Your task to perform on an android device: turn off notifications in google photos Image 0: 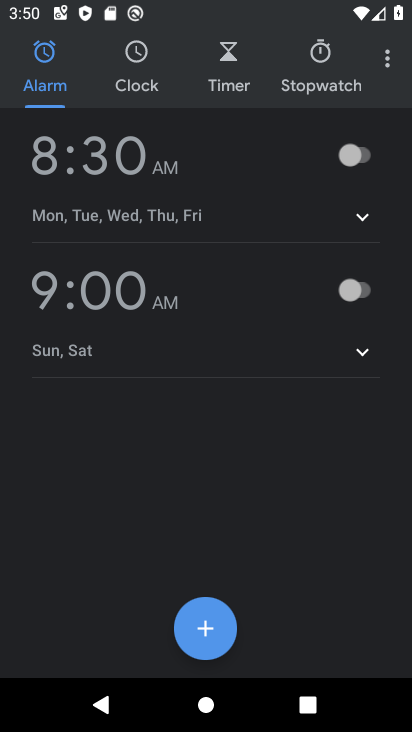
Step 0: press home button
Your task to perform on an android device: turn off notifications in google photos Image 1: 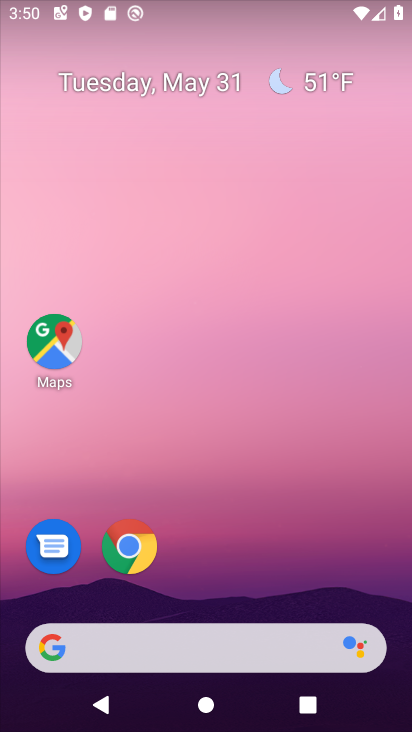
Step 1: drag from (236, 584) to (197, 270)
Your task to perform on an android device: turn off notifications in google photos Image 2: 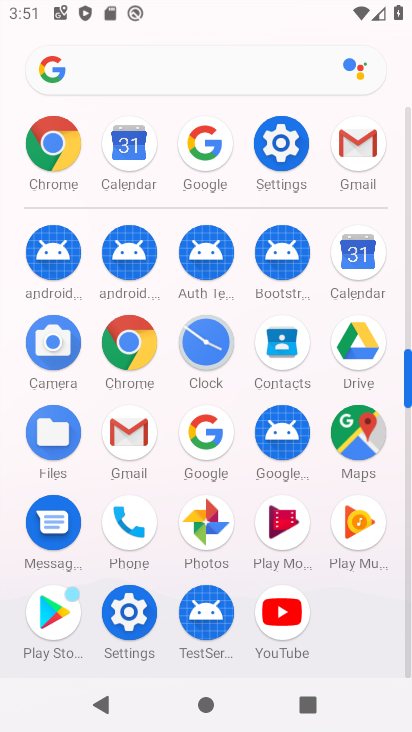
Step 2: click (210, 514)
Your task to perform on an android device: turn off notifications in google photos Image 3: 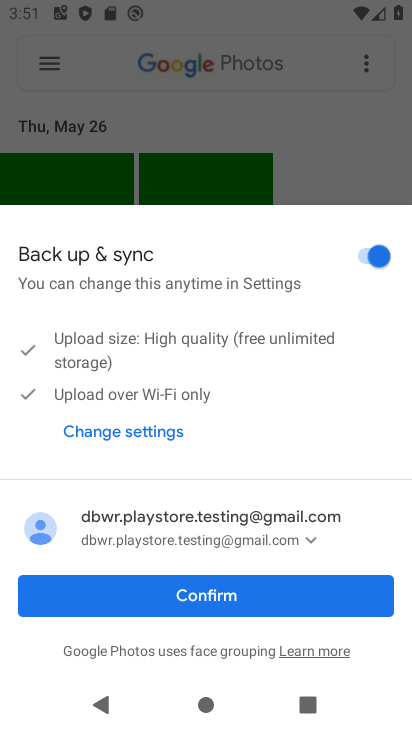
Step 3: click (189, 600)
Your task to perform on an android device: turn off notifications in google photos Image 4: 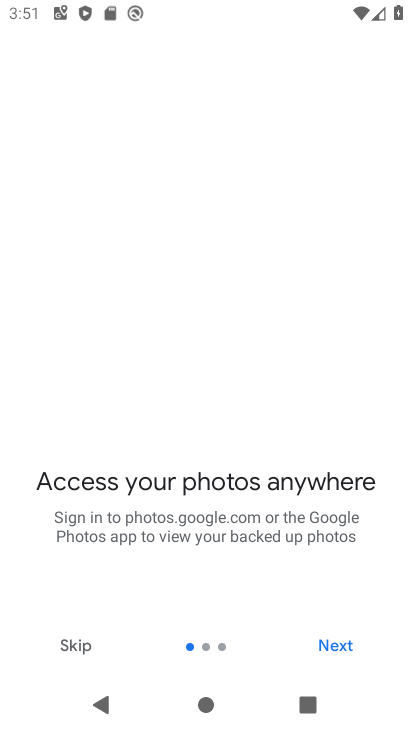
Step 4: click (340, 640)
Your task to perform on an android device: turn off notifications in google photos Image 5: 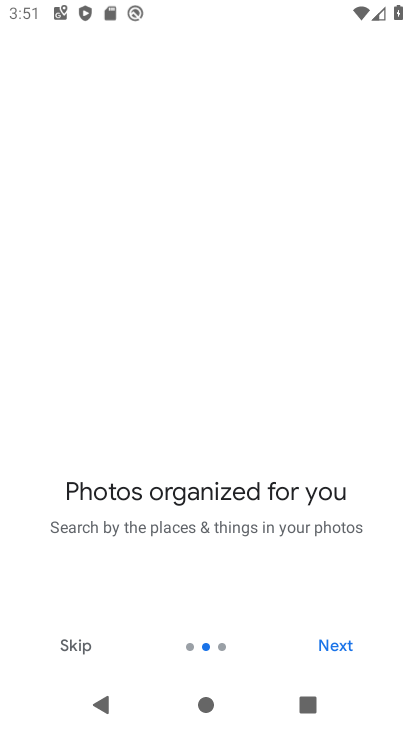
Step 5: click (340, 640)
Your task to perform on an android device: turn off notifications in google photos Image 6: 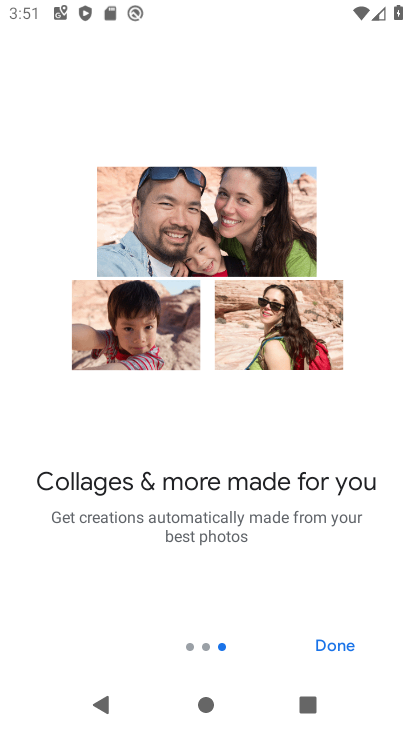
Step 6: click (340, 640)
Your task to perform on an android device: turn off notifications in google photos Image 7: 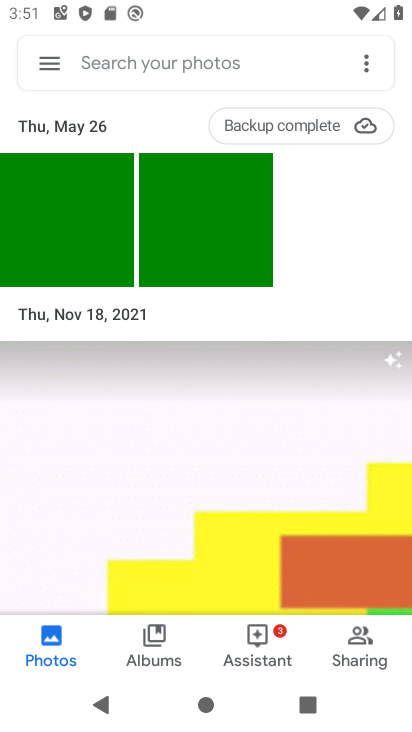
Step 7: click (40, 62)
Your task to perform on an android device: turn off notifications in google photos Image 8: 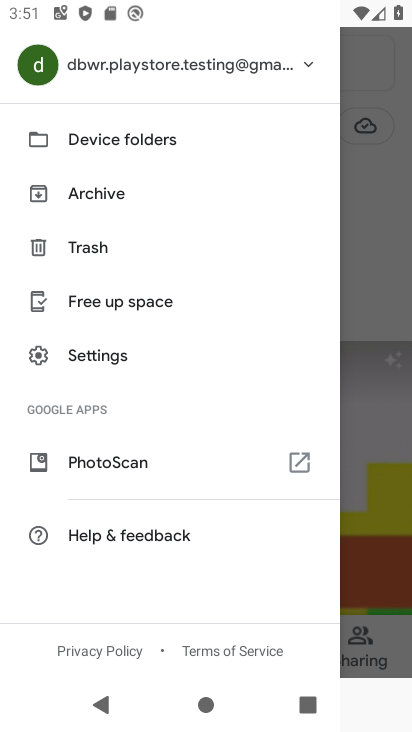
Step 8: click (87, 347)
Your task to perform on an android device: turn off notifications in google photos Image 9: 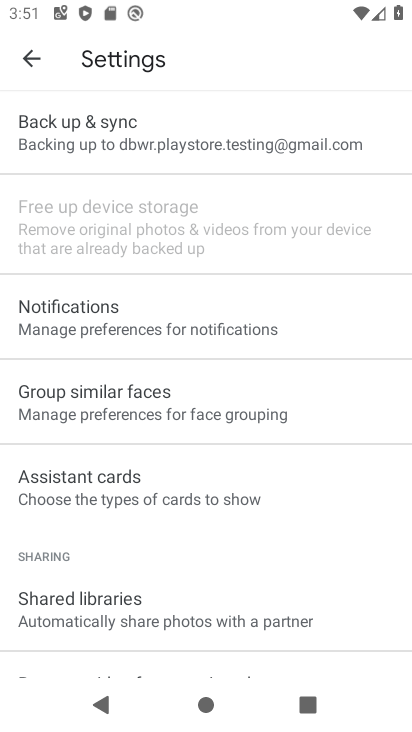
Step 9: click (119, 330)
Your task to perform on an android device: turn off notifications in google photos Image 10: 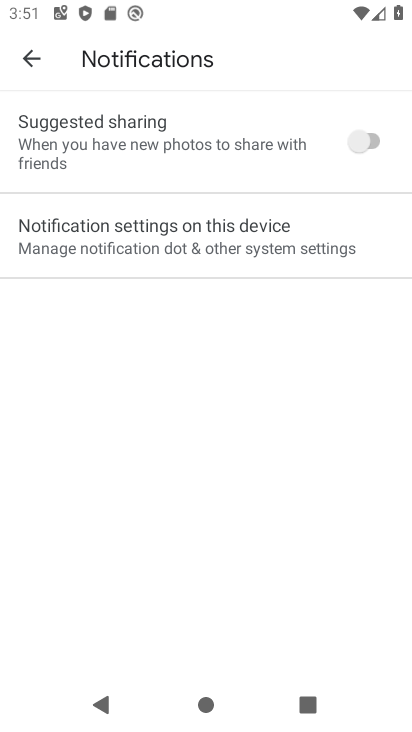
Step 10: click (246, 251)
Your task to perform on an android device: turn off notifications in google photos Image 11: 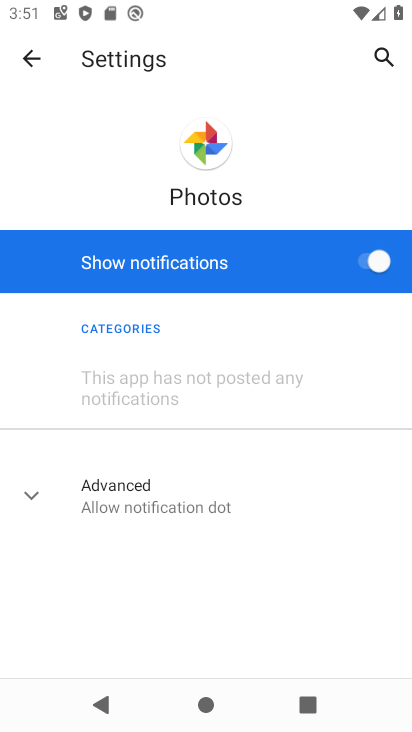
Step 11: click (377, 272)
Your task to perform on an android device: turn off notifications in google photos Image 12: 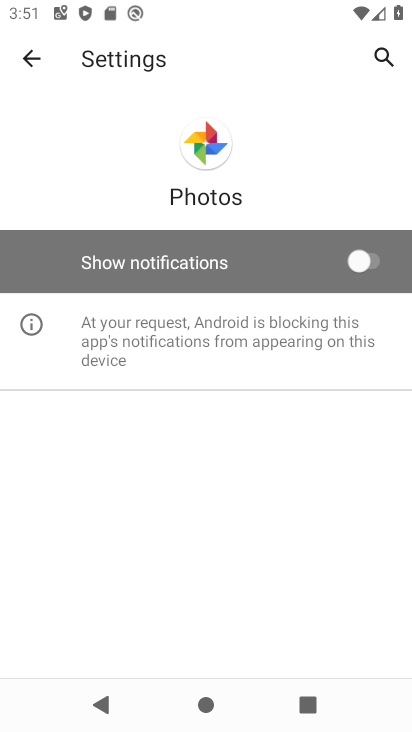
Step 12: task complete